Your task to perform on an android device: refresh tabs in the chrome app Image 0: 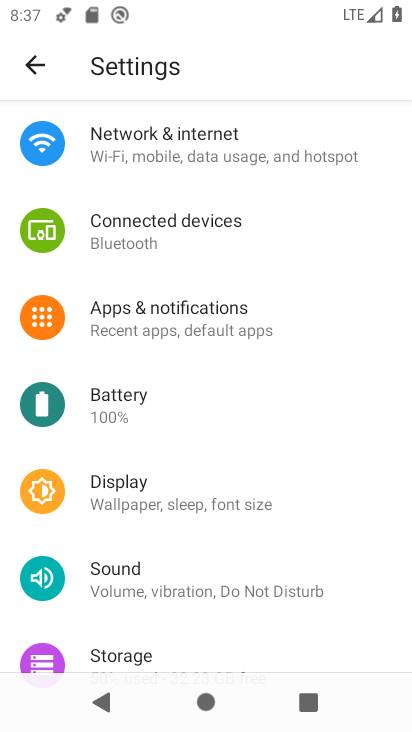
Step 0: press home button
Your task to perform on an android device: refresh tabs in the chrome app Image 1: 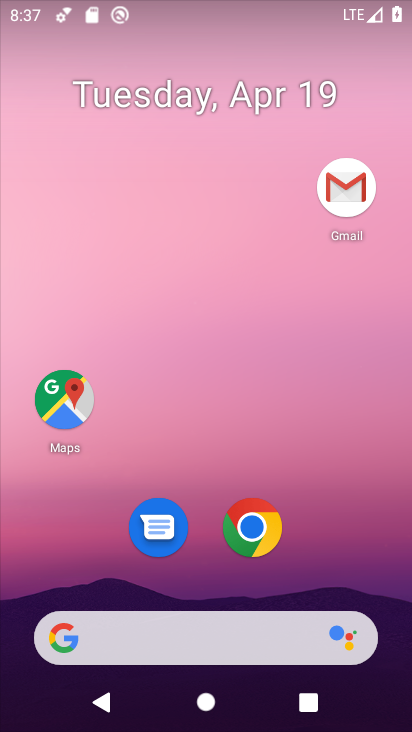
Step 1: click (270, 534)
Your task to perform on an android device: refresh tabs in the chrome app Image 2: 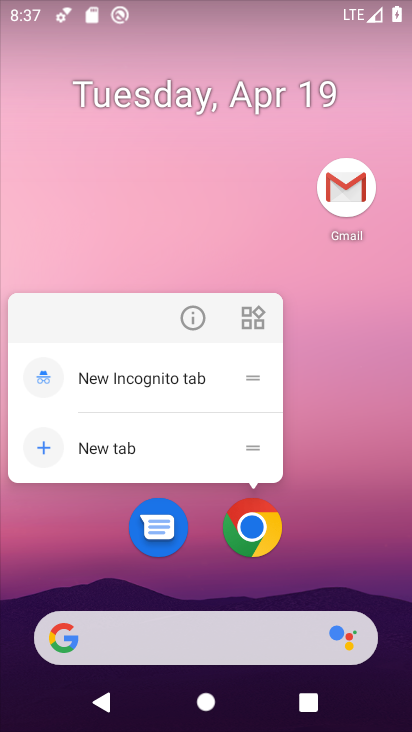
Step 2: click (269, 534)
Your task to perform on an android device: refresh tabs in the chrome app Image 3: 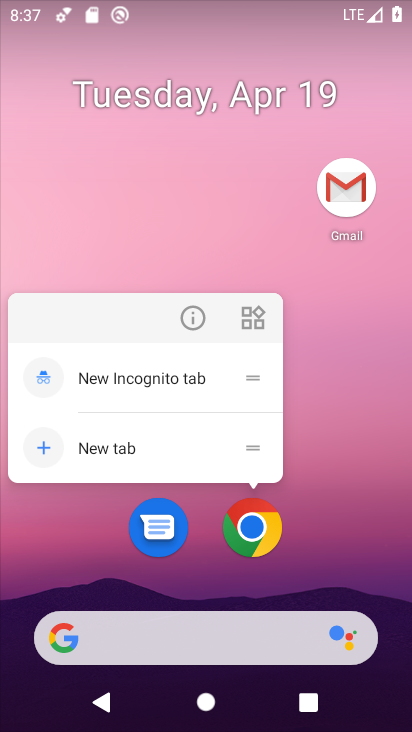
Step 3: drag from (353, 278) to (354, 113)
Your task to perform on an android device: refresh tabs in the chrome app Image 4: 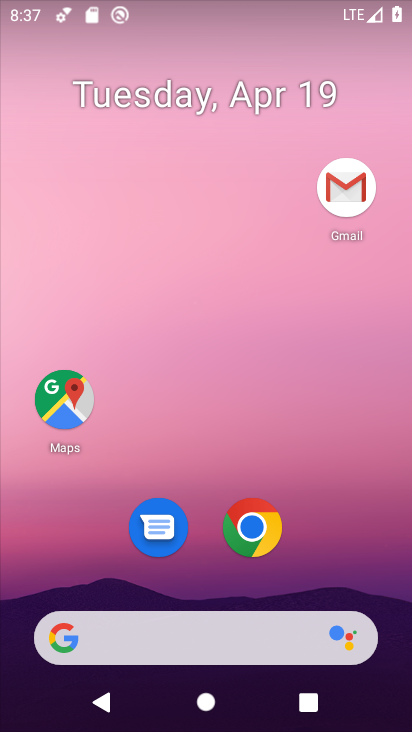
Step 4: drag from (364, 172) to (355, 100)
Your task to perform on an android device: refresh tabs in the chrome app Image 5: 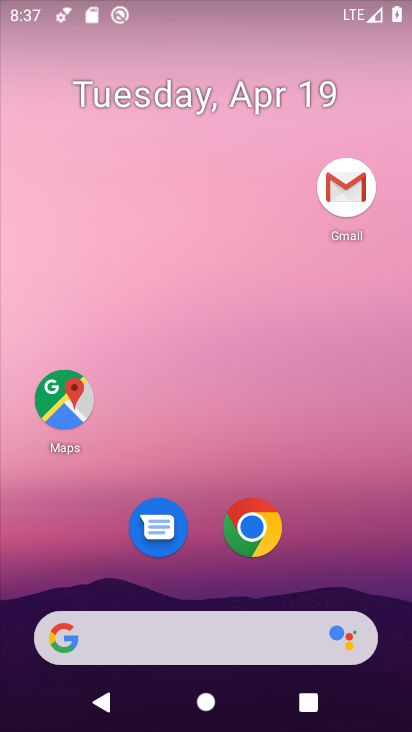
Step 5: drag from (388, 230) to (388, 158)
Your task to perform on an android device: refresh tabs in the chrome app Image 6: 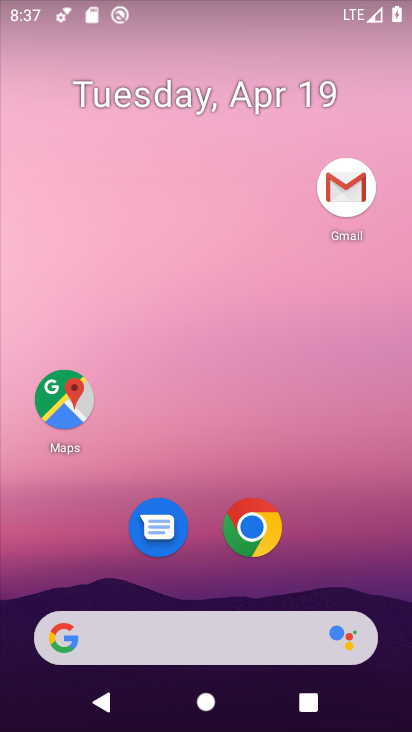
Step 6: drag from (316, 360) to (265, 85)
Your task to perform on an android device: refresh tabs in the chrome app Image 7: 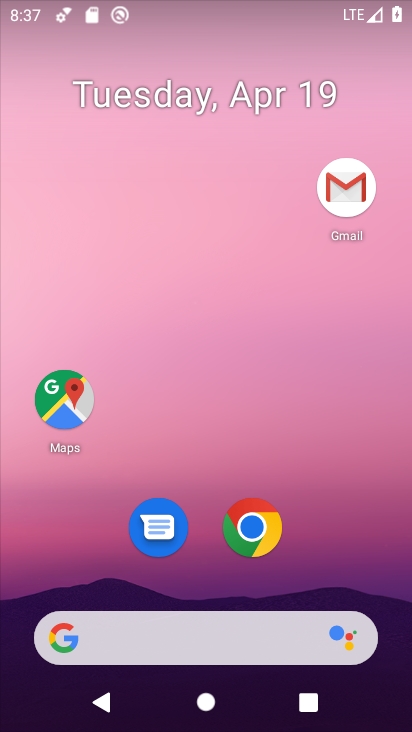
Step 7: drag from (265, 243) to (236, 109)
Your task to perform on an android device: refresh tabs in the chrome app Image 8: 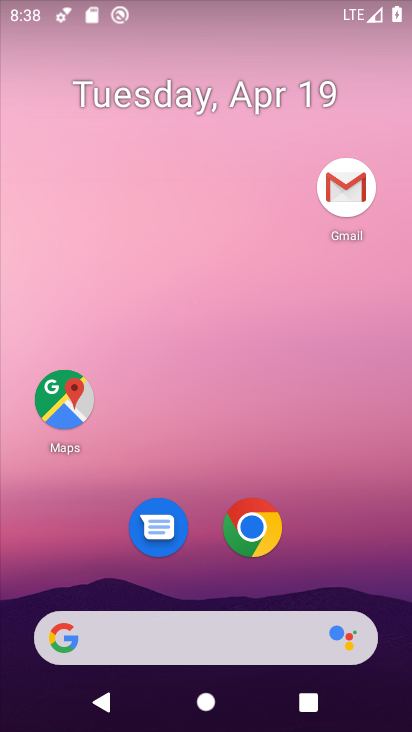
Step 8: drag from (351, 573) to (207, 48)
Your task to perform on an android device: refresh tabs in the chrome app Image 9: 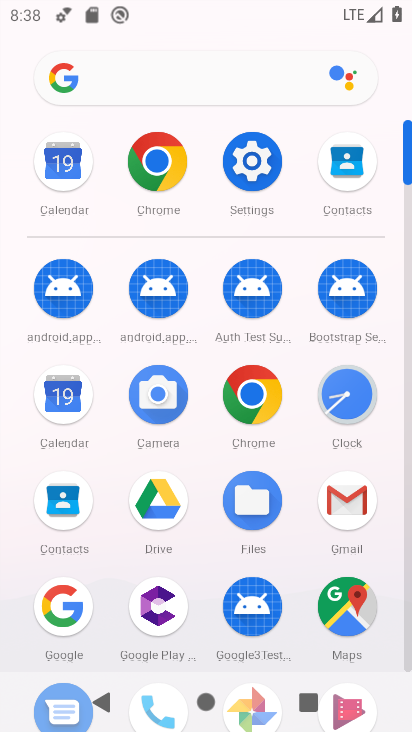
Step 9: click (260, 414)
Your task to perform on an android device: refresh tabs in the chrome app Image 10: 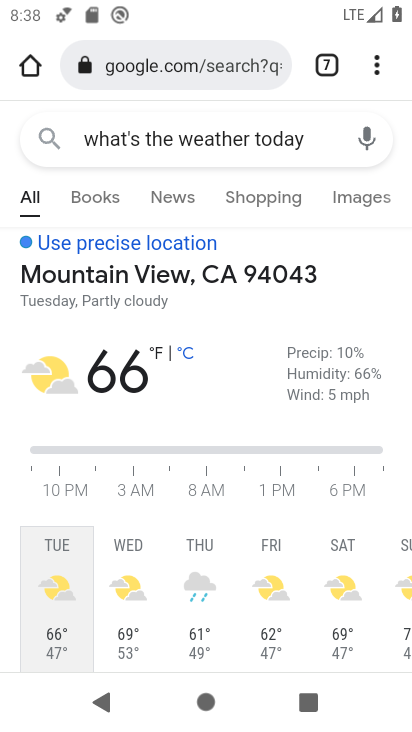
Step 10: click (388, 92)
Your task to perform on an android device: refresh tabs in the chrome app Image 11: 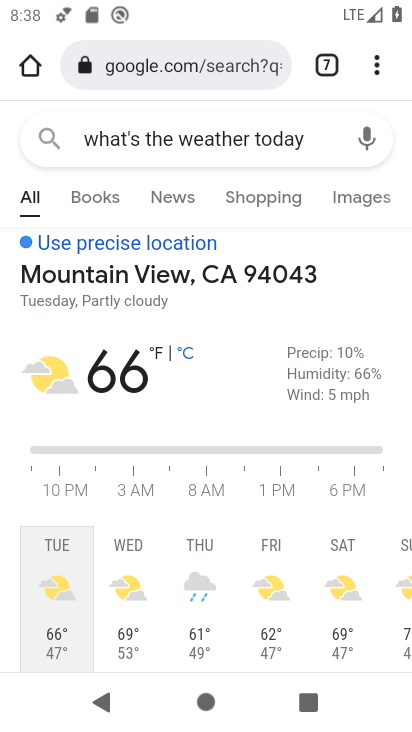
Step 11: task complete